Your task to perform on an android device: Search for the best selling book on Amazon. Image 0: 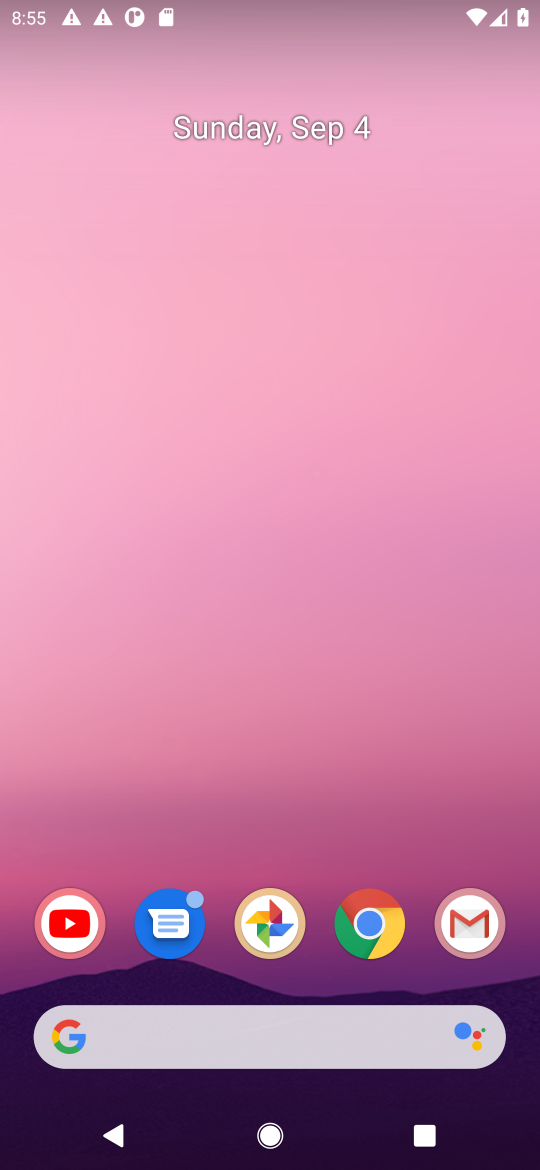
Step 0: click (390, 950)
Your task to perform on an android device: Search for the best selling book on Amazon. Image 1: 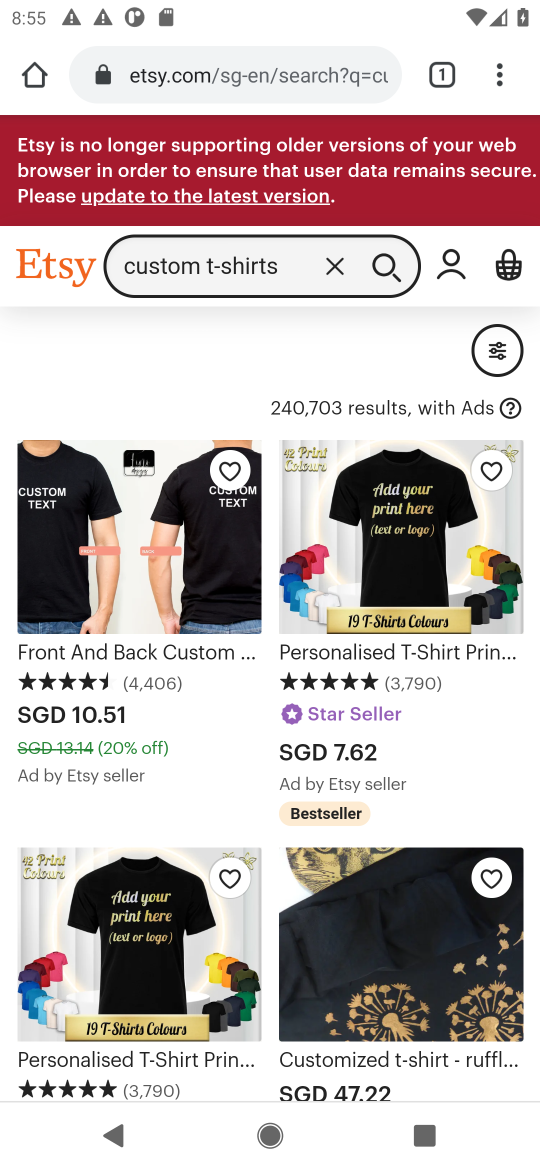
Step 1: click (395, 265)
Your task to perform on an android device: Search for the best selling book on Amazon. Image 2: 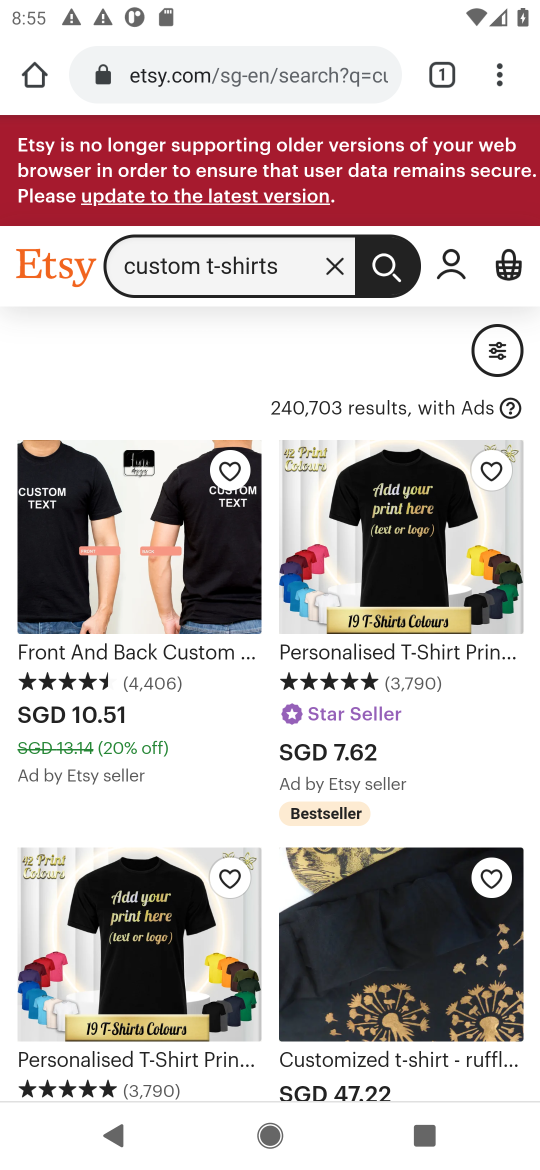
Step 2: click (340, 270)
Your task to perform on an android device: Search for the best selling book on Amazon. Image 3: 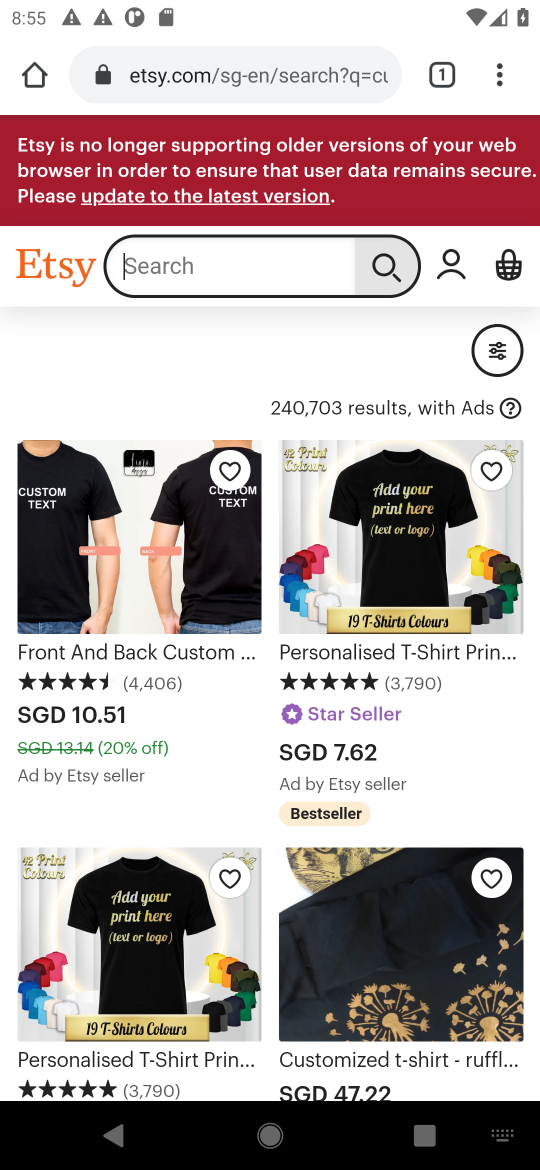
Step 3: drag from (322, 64) to (492, 144)
Your task to perform on an android device: Search for the best selling book on Amazon. Image 4: 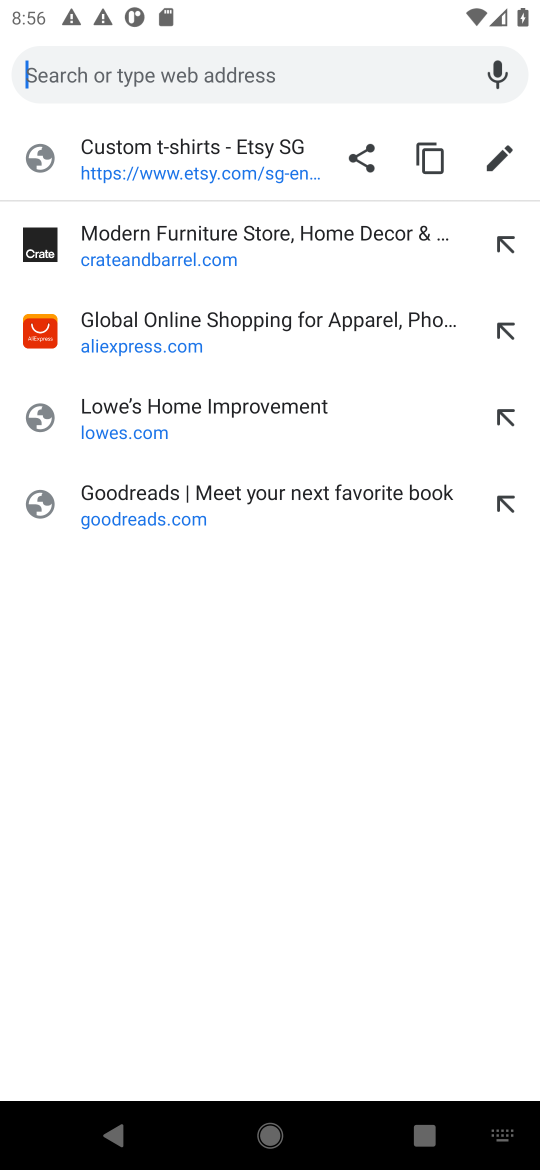
Step 4: type "amazon"
Your task to perform on an android device: Search for the best selling book on Amazon. Image 5: 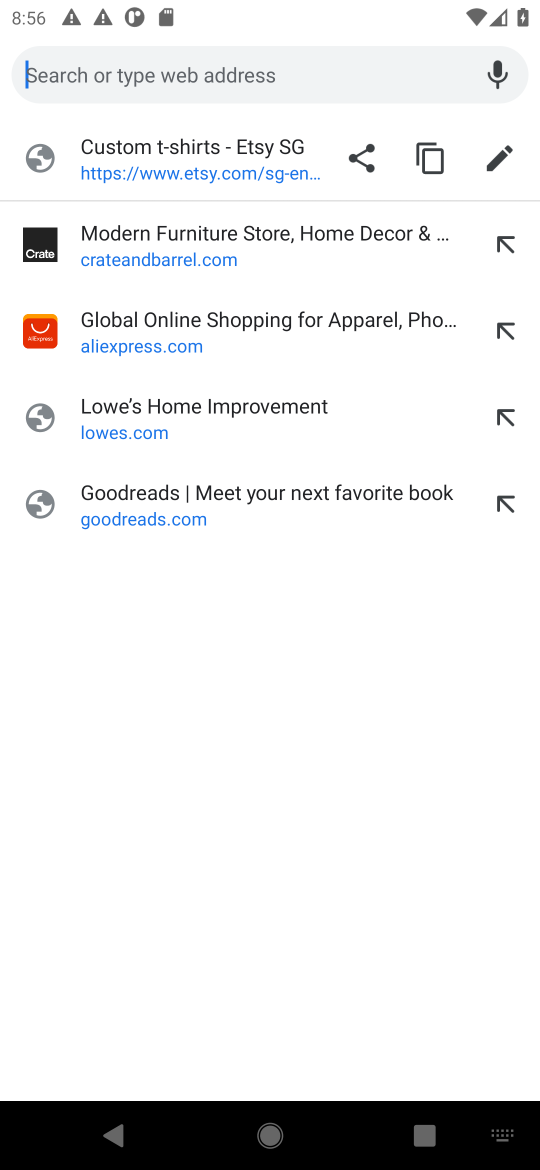
Step 5: drag from (492, 144) to (429, 476)
Your task to perform on an android device: Search for the best selling book on Amazon. Image 6: 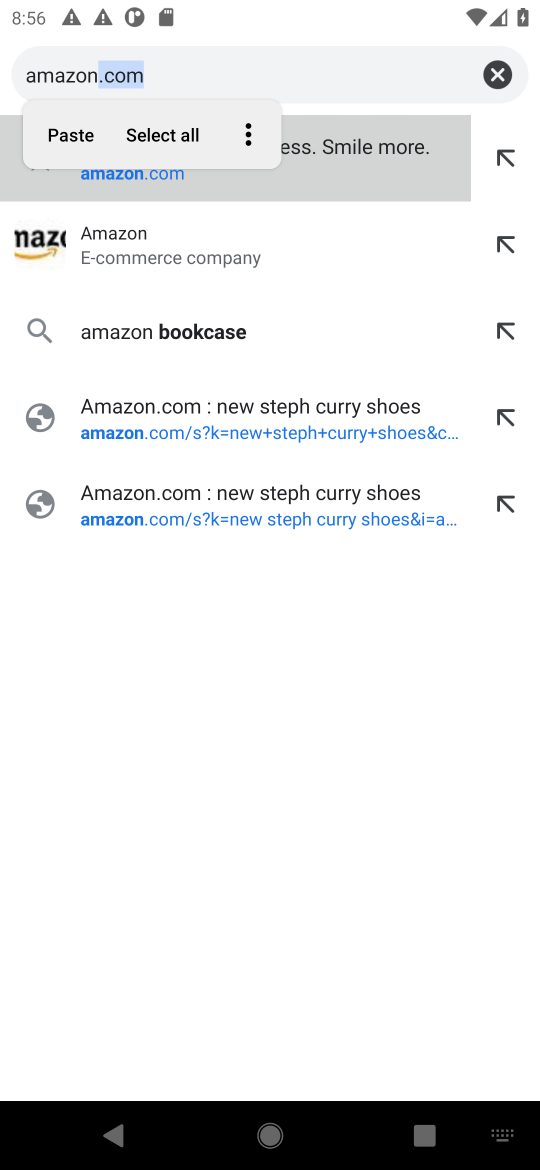
Step 6: click (147, 151)
Your task to perform on an android device: Search for the best selling book on Amazon. Image 7: 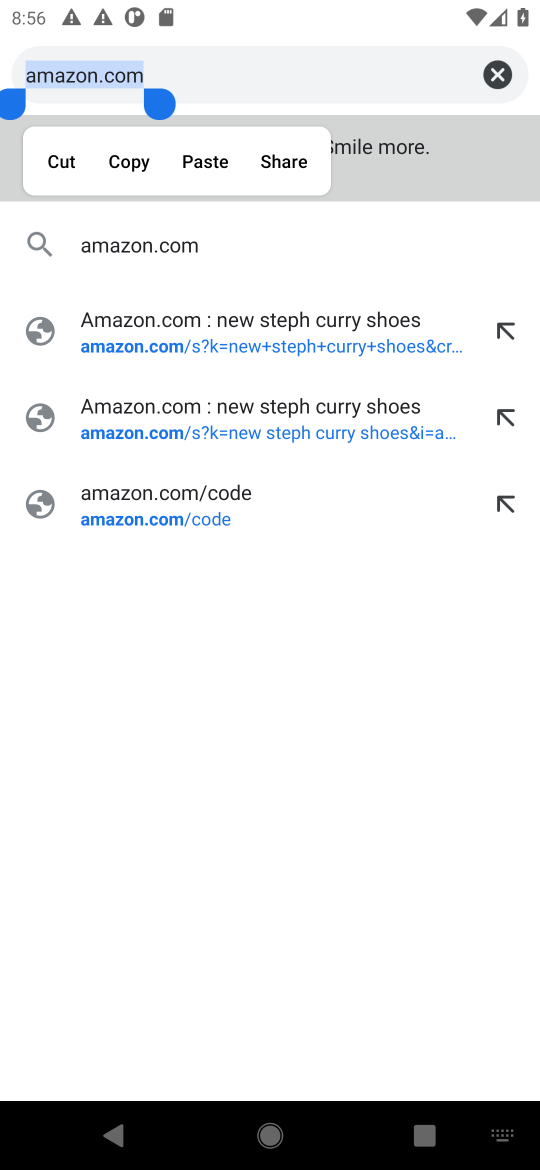
Step 7: click (381, 166)
Your task to perform on an android device: Search for the best selling book on Amazon. Image 8: 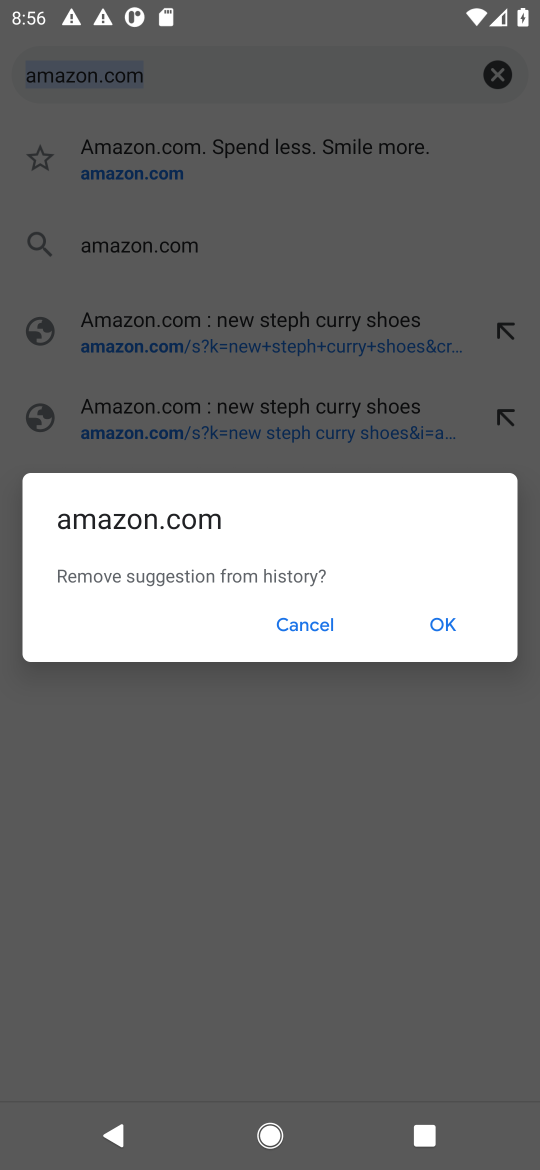
Step 8: click (313, 622)
Your task to perform on an android device: Search for the best selling book on Amazon. Image 9: 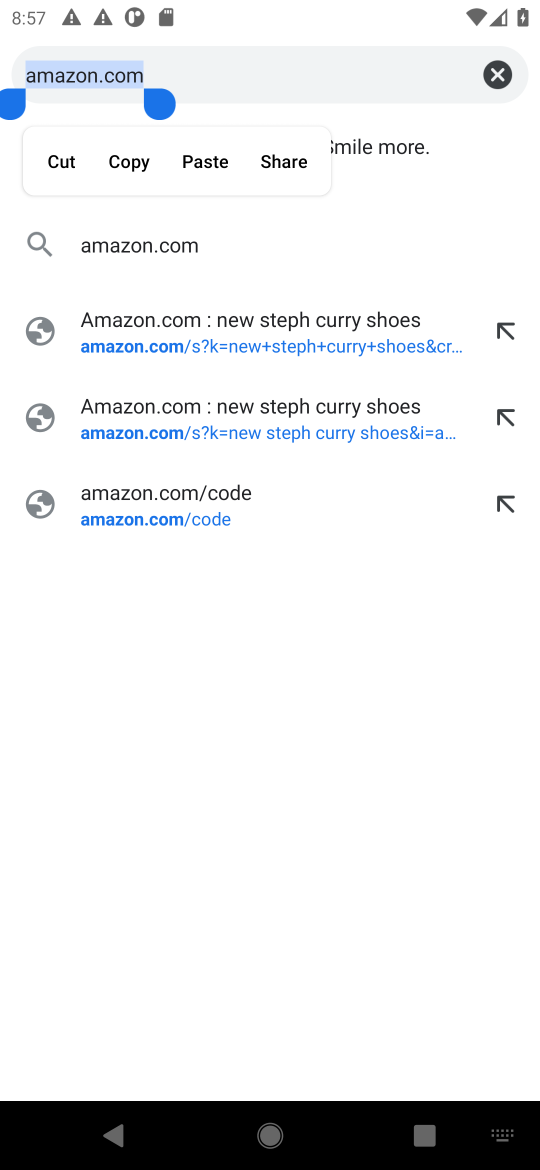
Step 9: click (195, 252)
Your task to perform on an android device: Search for the best selling book on Amazon. Image 10: 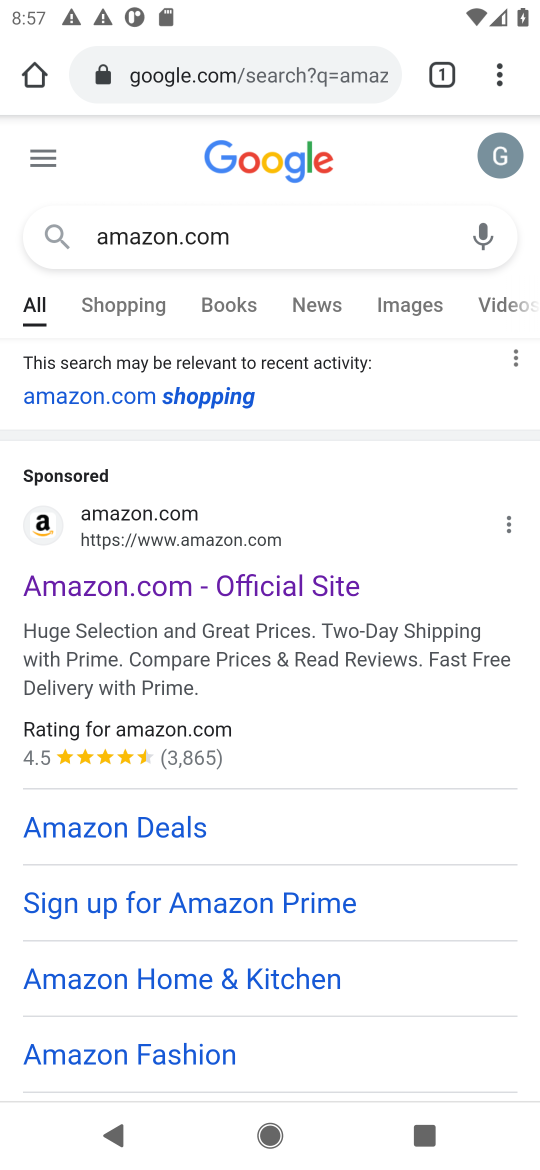
Step 10: click (260, 590)
Your task to perform on an android device: Search for the best selling book on Amazon. Image 11: 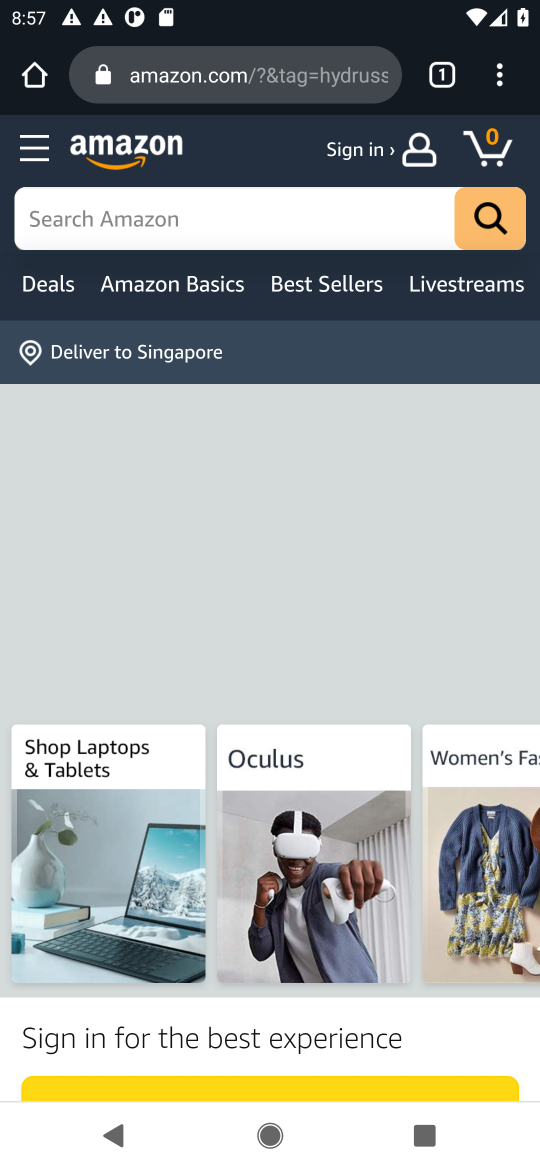
Step 11: click (227, 224)
Your task to perform on an android device: Search for the best selling book on Amazon. Image 12: 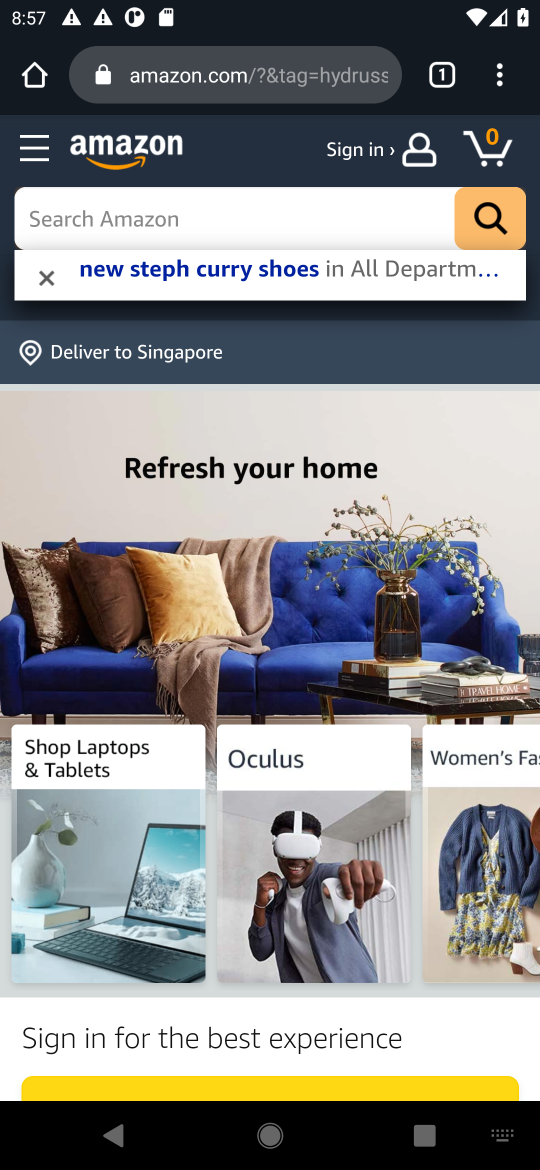
Step 12: type "best selling book"
Your task to perform on an android device: Search for the best selling book on Amazon. Image 13: 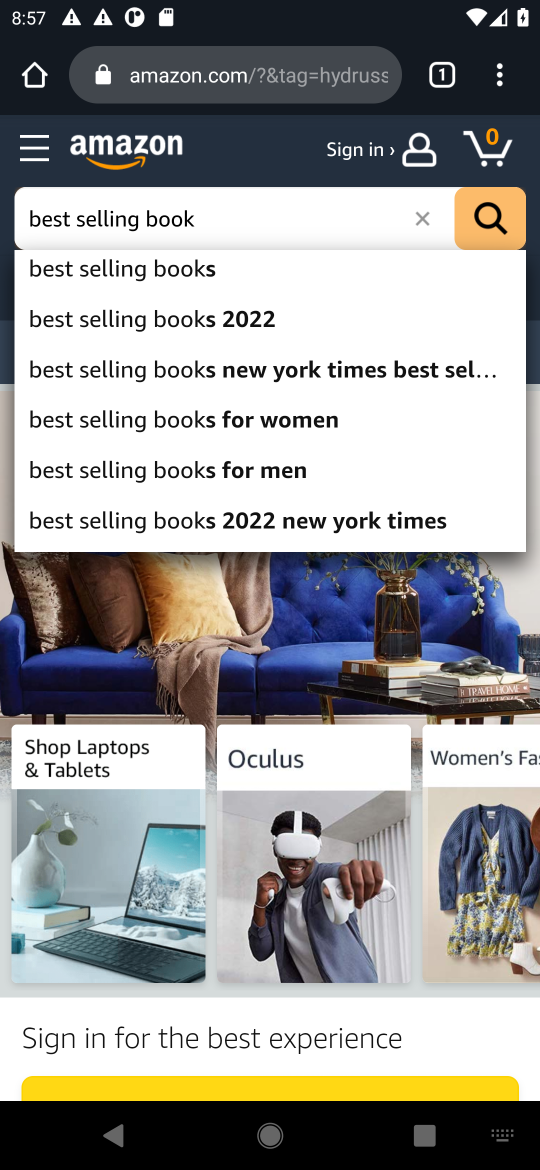
Step 13: click (199, 267)
Your task to perform on an android device: Search for the best selling book on Amazon. Image 14: 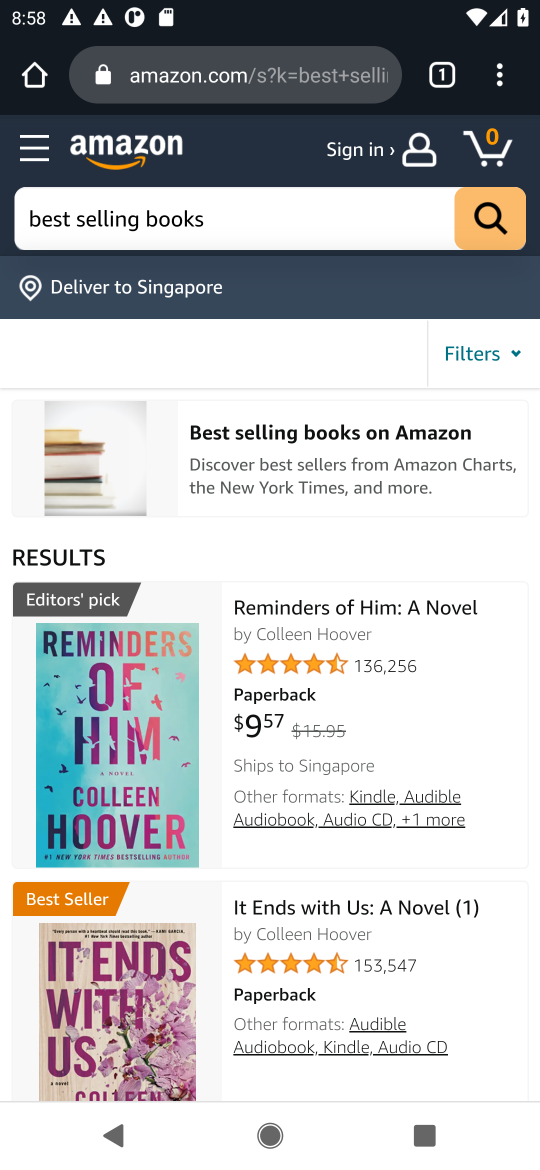
Step 14: task complete